Your task to perform on an android device: Open Amazon Image 0: 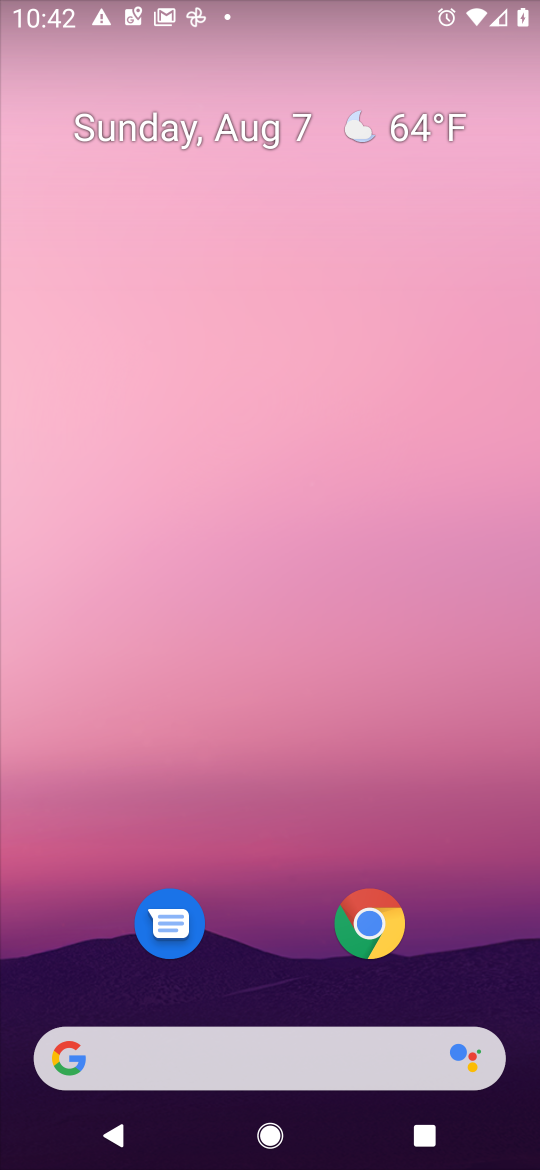
Step 0: drag from (469, 949) to (214, 52)
Your task to perform on an android device: Open Amazon Image 1: 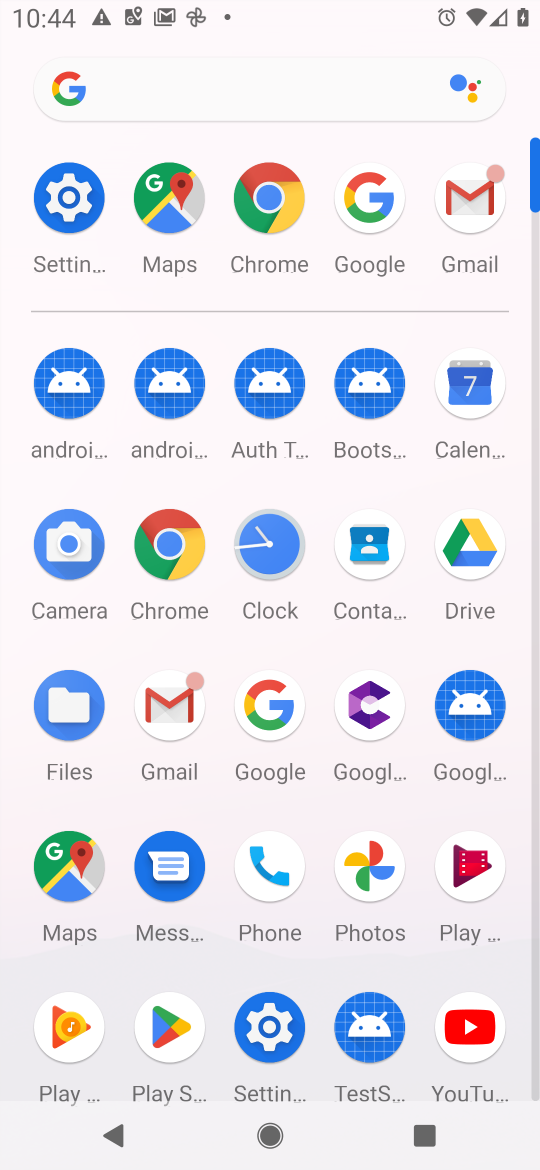
Step 1: click (272, 715)
Your task to perform on an android device: Open Amazon Image 2: 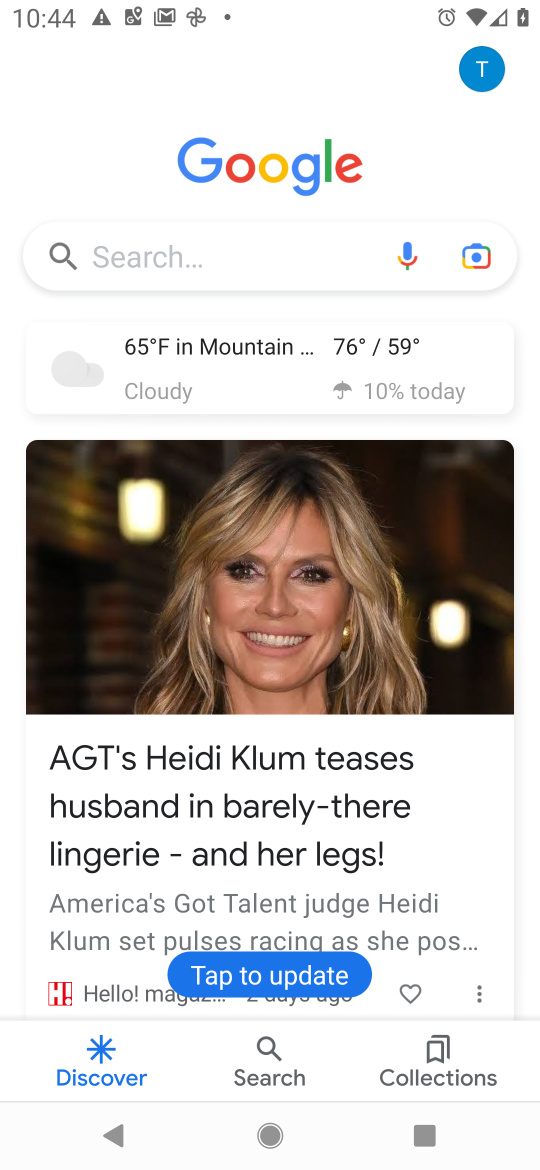
Step 2: click (168, 286)
Your task to perform on an android device: Open Amazon Image 3: 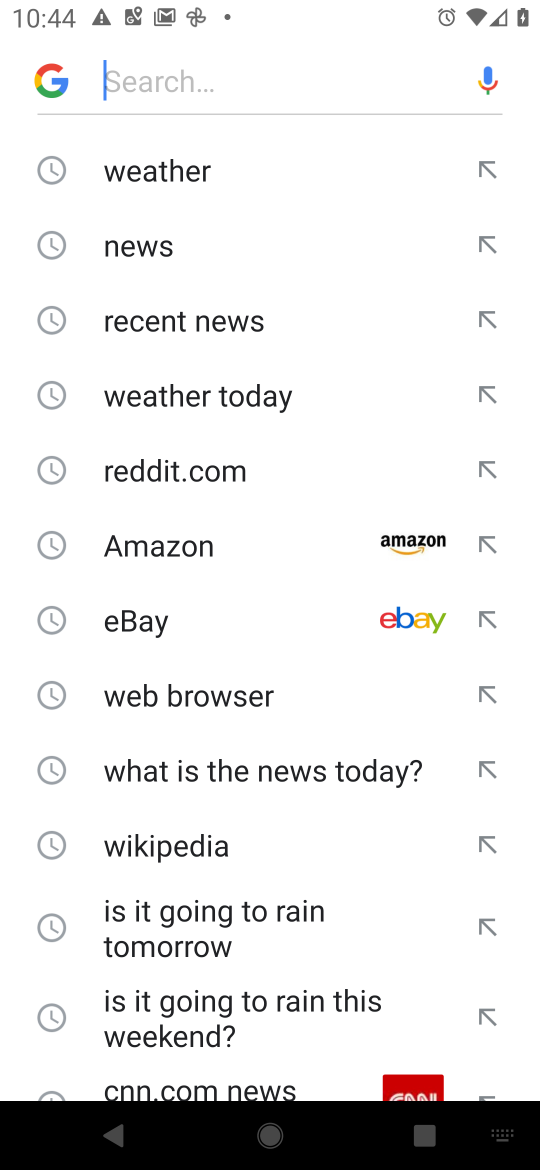
Step 3: click (196, 531)
Your task to perform on an android device: Open Amazon Image 4: 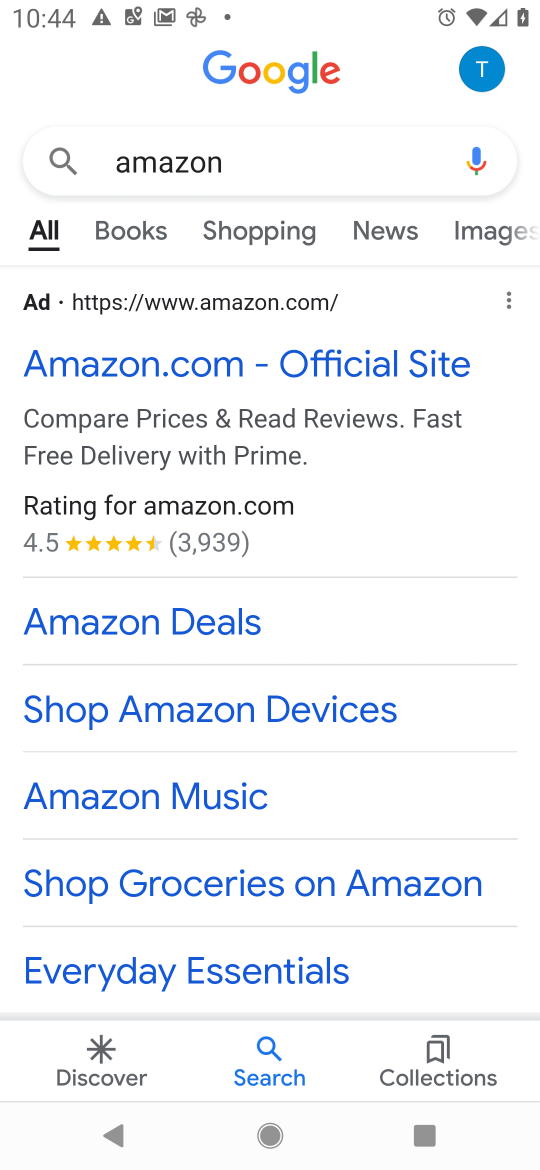
Step 4: task complete